Your task to perform on an android device: Go to accessibility settings Image 0: 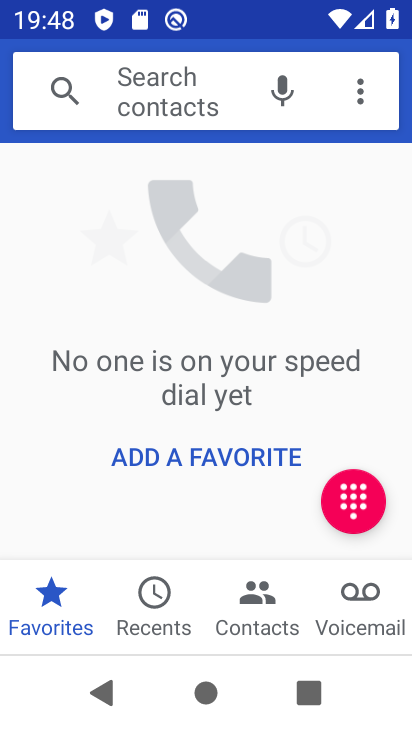
Step 0: press home button
Your task to perform on an android device: Go to accessibility settings Image 1: 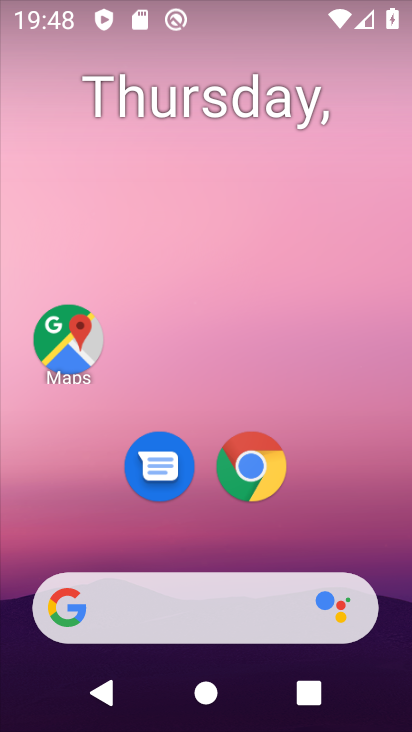
Step 1: drag from (347, 545) to (287, 109)
Your task to perform on an android device: Go to accessibility settings Image 2: 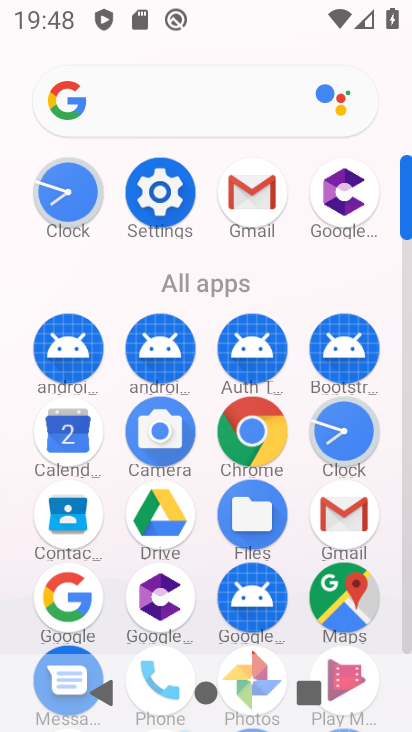
Step 2: click (181, 199)
Your task to perform on an android device: Go to accessibility settings Image 3: 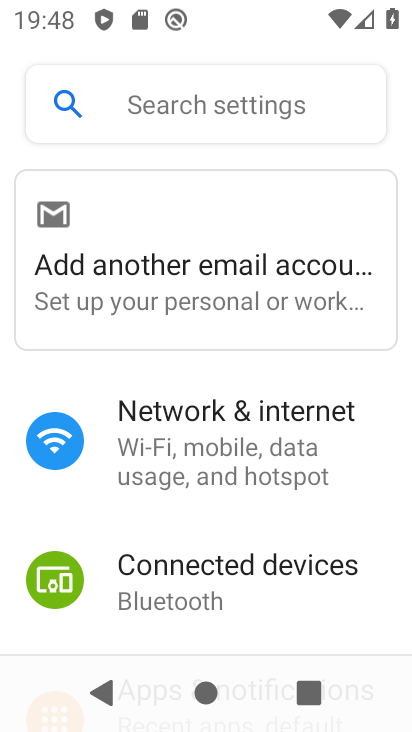
Step 3: drag from (319, 620) to (260, 152)
Your task to perform on an android device: Go to accessibility settings Image 4: 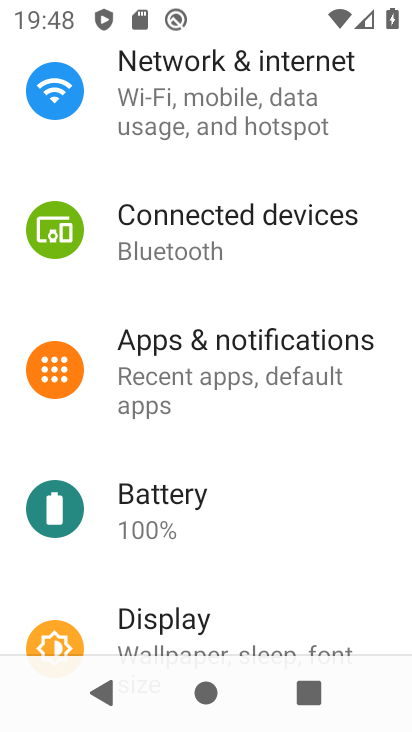
Step 4: drag from (358, 606) to (304, 128)
Your task to perform on an android device: Go to accessibility settings Image 5: 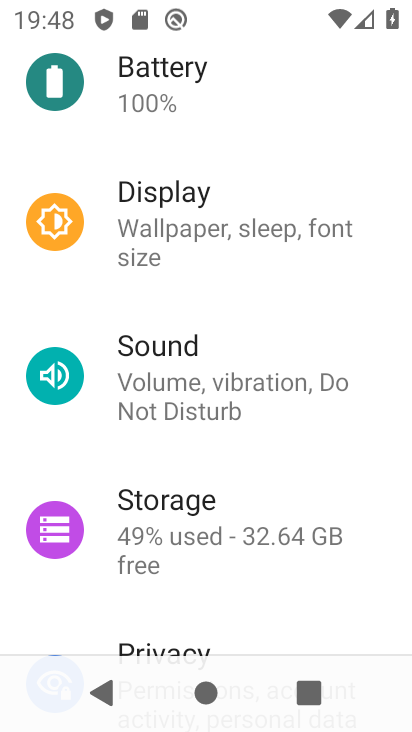
Step 5: drag from (352, 627) to (255, 21)
Your task to perform on an android device: Go to accessibility settings Image 6: 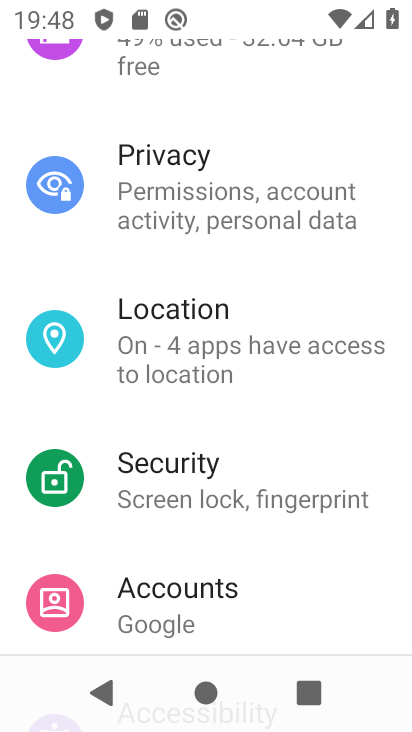
Step 6: drag from (297, 603) to (244, 193)
Your task to perform on an android device: Go to accessibility settings Image 7: 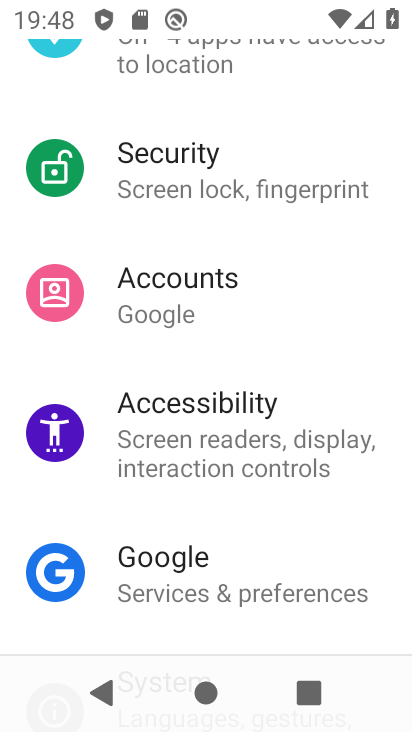
Step 7: click (219, 412)
Your task to perform on an android device: Go to accessibility settings Image 8: 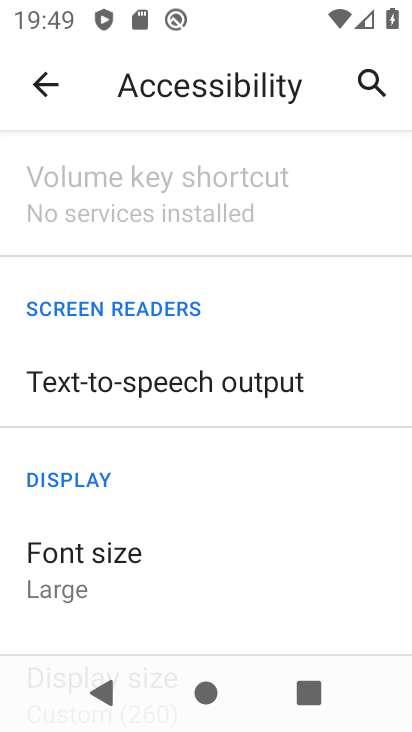
Step 8: task complete